Your task to perform on an android device: show emergency info Image 0: 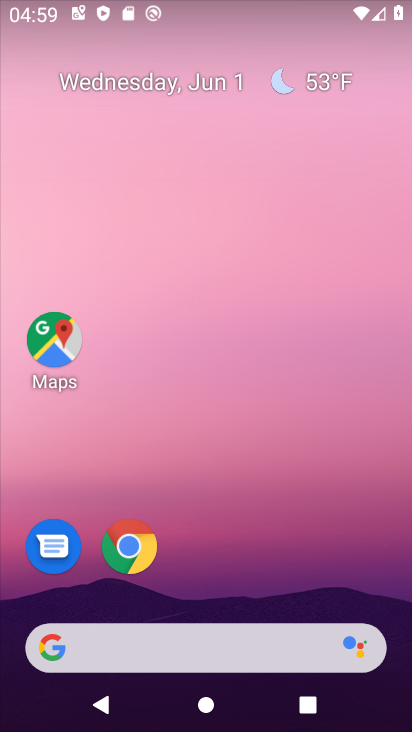
Step 0: drag from (244, 493) to (111, 153)
Your task to perform on an android device: show emergency info Image 1: 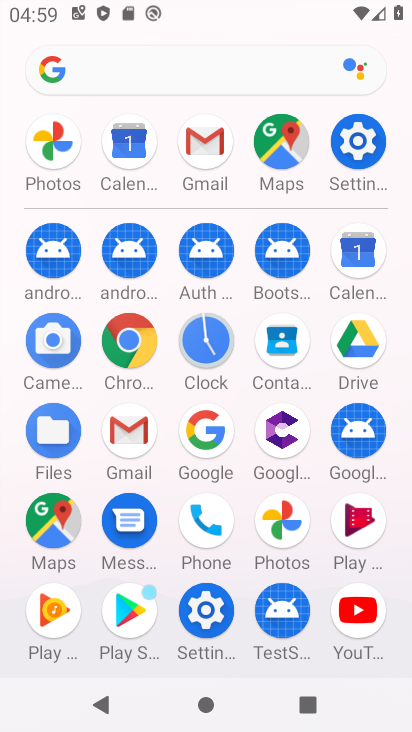
Step 1: click (359, 138)
Your task to perform on an android device: show emergency info Image 2: 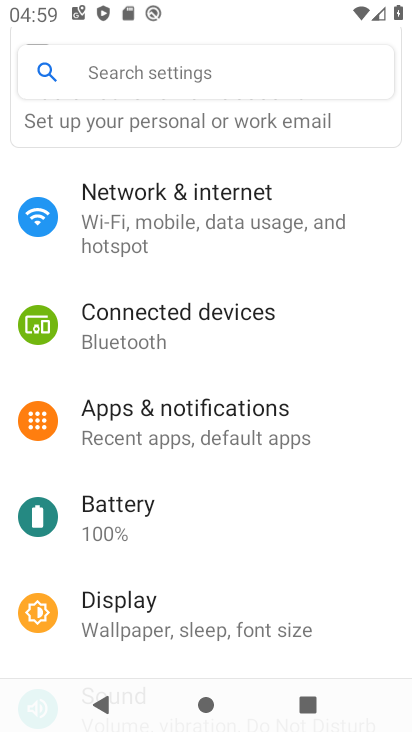
Step 2: drag from (192, 590) to (171, 200)
Your task to perform on an android device: show emergency info Image 3: 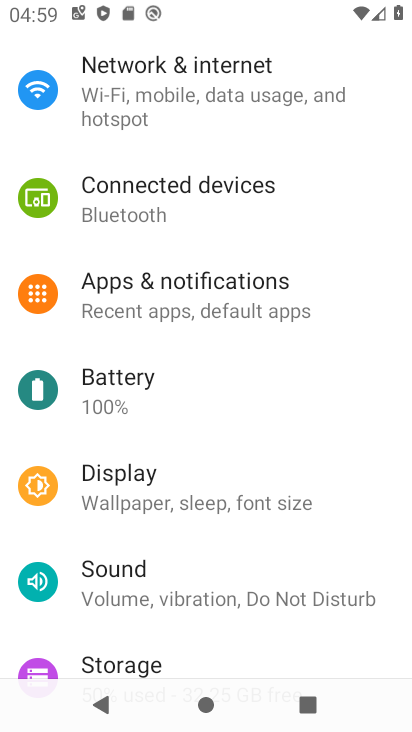
Step 3: drag from (218, 555) to (167, 158)
Your task to perform on an android device: show emergency info Image 4: 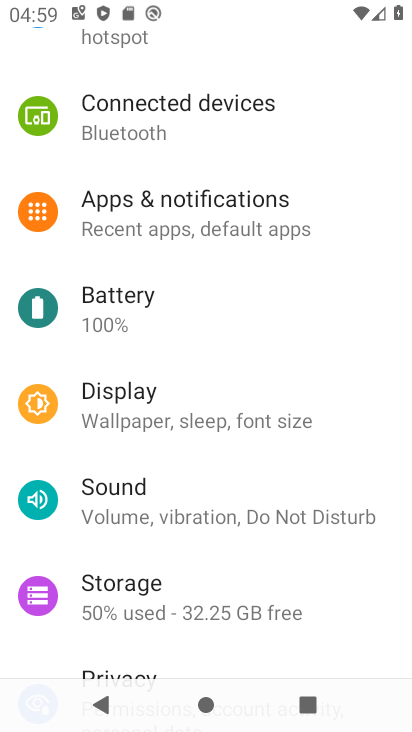
Step 4: drag from (198, 555) to (206, 146)
Your task to perform on an android device: show emergency info Image 5: 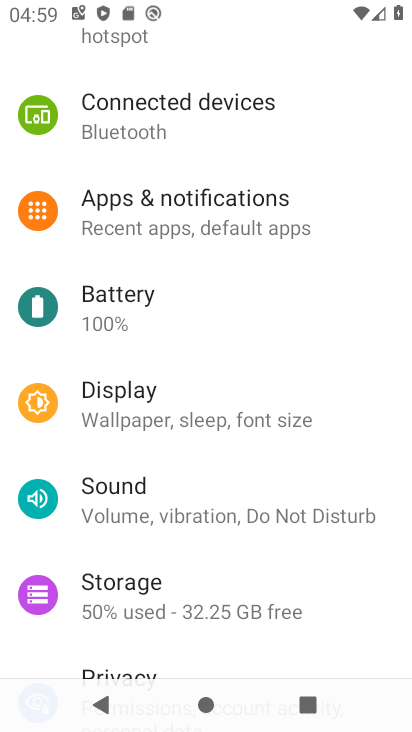
Step 5: drag from (211, 486) to (157, 75)
Your task to perform on an android device: show emergency info Image 6: 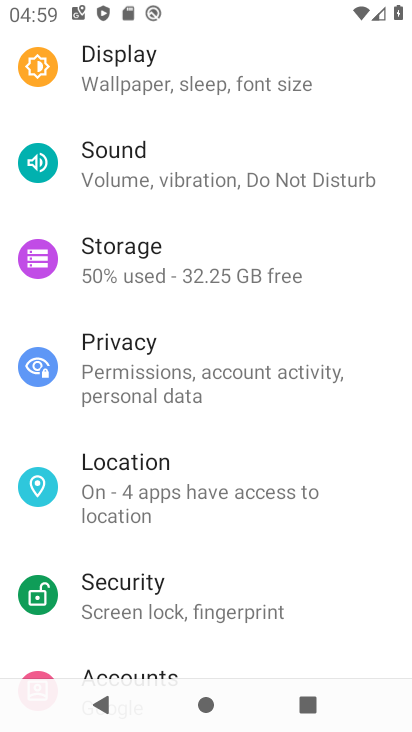
Step 6: drag from (218, 514) to (179, 257)
Your task to perform on an android device: show emergency info Image 7: 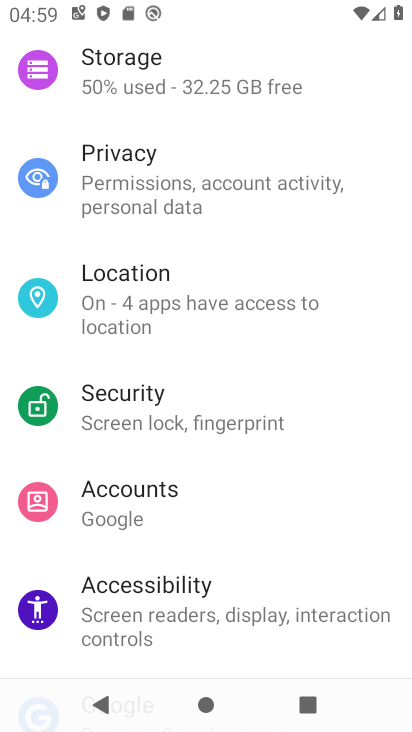
Step 7: drag from (176, 536) to (125, 0)
Your task to perform on an android device: show emergency info Image 8: 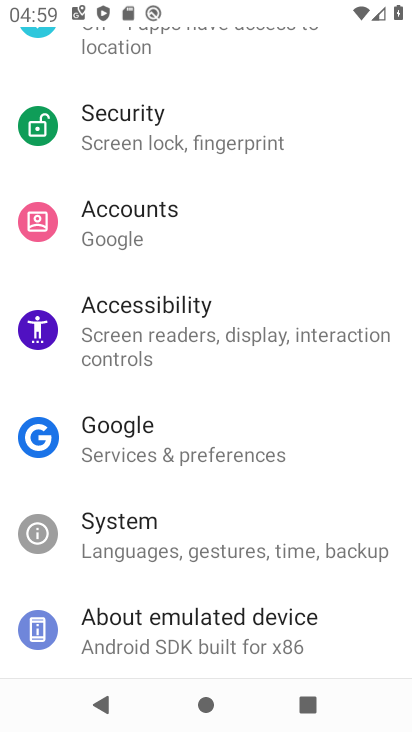
Step 8: click (193, 613)
Your task to perform on an android device: show emergency info Image 9: 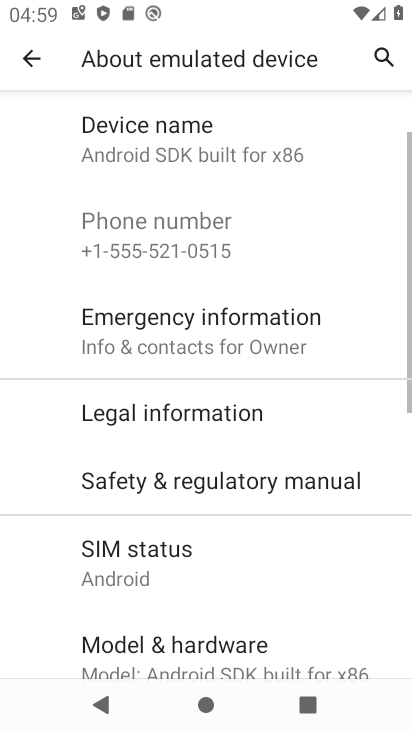
Step 9: click (164, 326)
Your task to perform on an android device: show emergency info Image 10: 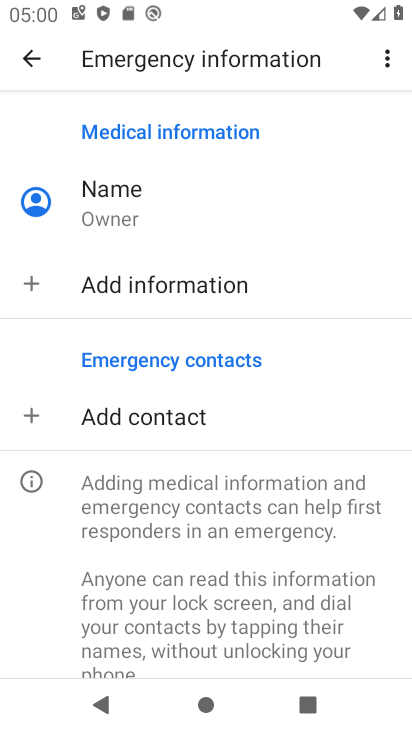
Step 10: task complete